Your task to perform on an android device: toggle javascript in the chrome app Image 0: 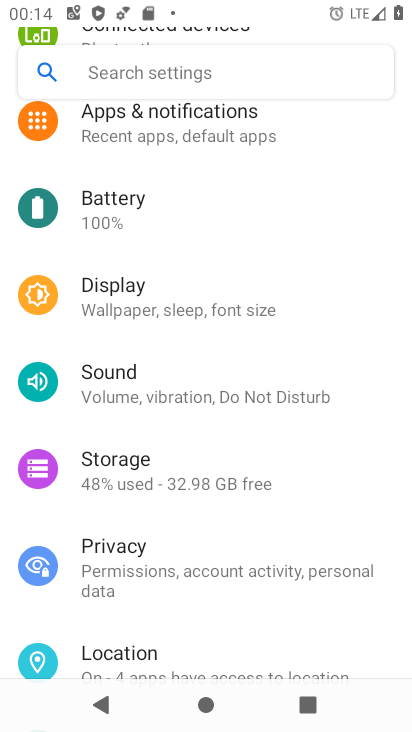
Step 0: press home button
Your task to perform on an android device: toggle javascript in the chrome app Image 1: 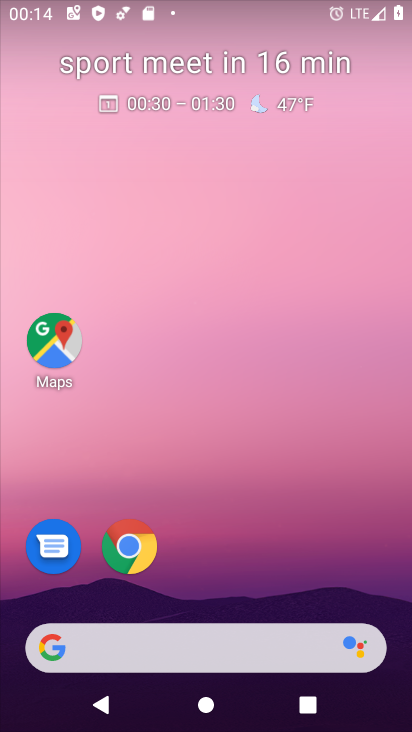
Step 1: click (138, 556)
Your task to perform on an android device: toggle javascript in the chrome app Image 2: 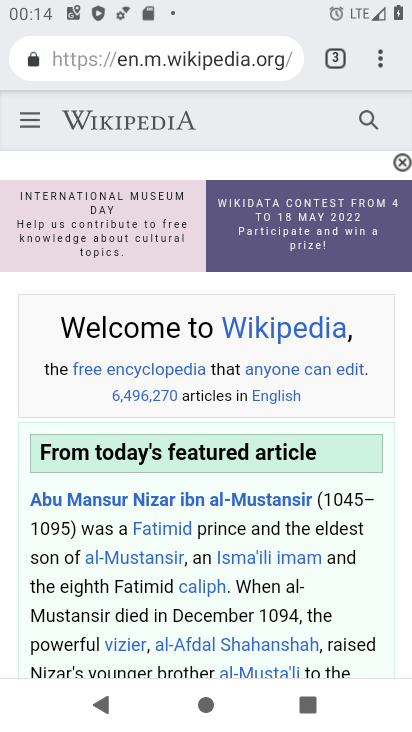
Step 2: click (382, 62)
Your task to perform on an android device: toggle javascript in the chrome app Image 3: 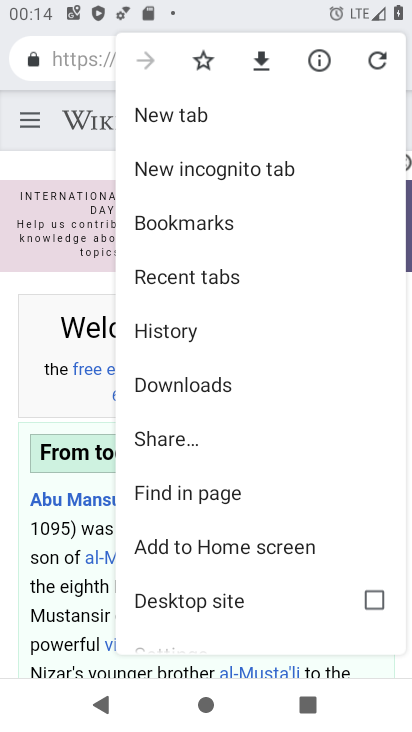
Step 3: drag from (263, 563) to (268, 163)
Your task to perform on an android device: toggle javascript in the chrome app Image 4: 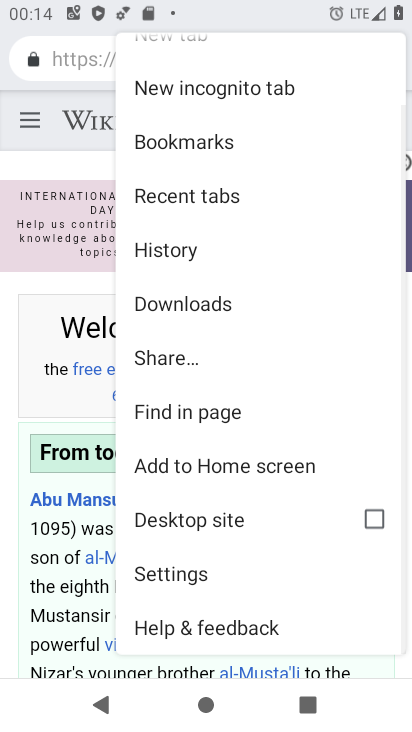
Step 4: click (178, 577)
Your task to perform on an android device: toggle javascript in the chrome app Image 5: 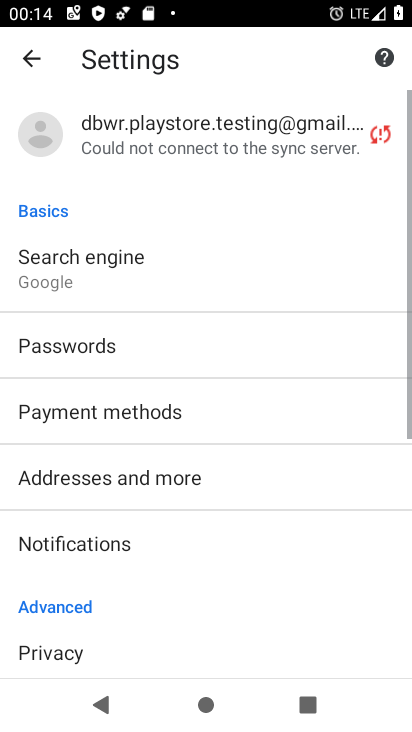
Step 5: drag from (178, 577) to (215, 157)
Your task to perform on an android device: toggle javascript in the chrome app Image 6: 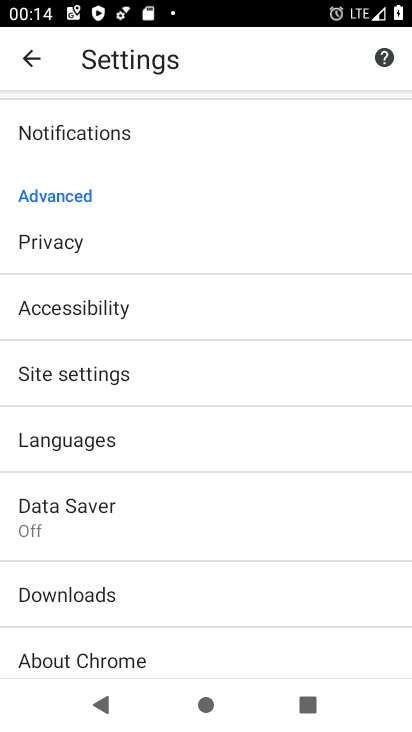
Step 6: click (71, 380)
Your task to perform on an android device: toggle javascript in the chrome app Image 7: 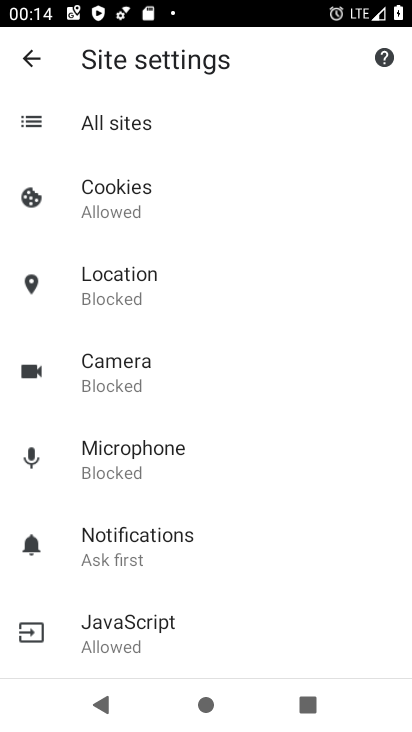
Step 7: click (148, 623)
Your task to perform on an android device: toggle javascript in the chrome app Image 8: 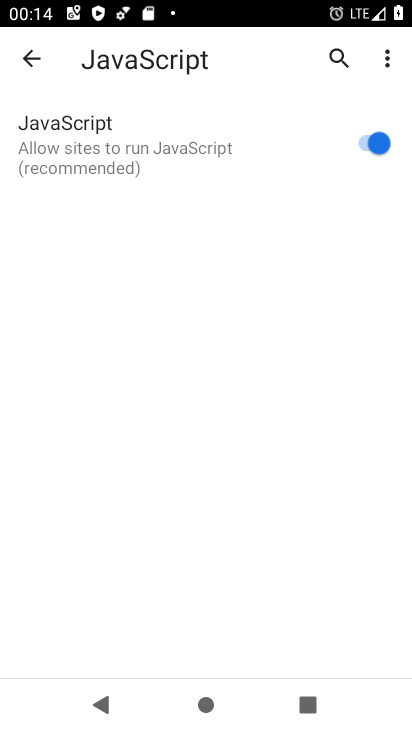
Step 8: click (380, 158)
Your task to perform on an android device: toggle javascript in the chrome app Image 9: 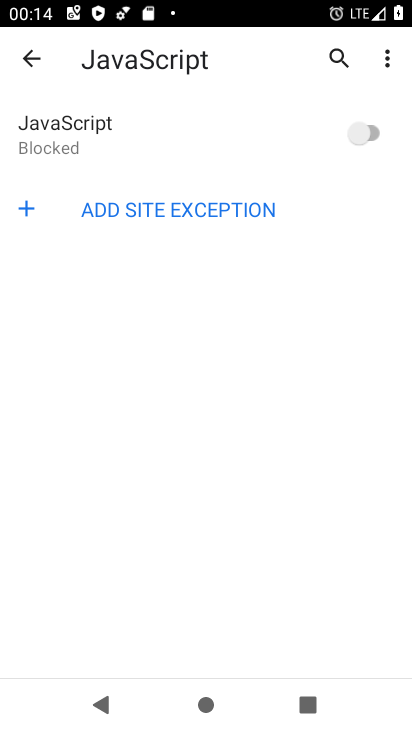
Step 9: task complete